Your task to perform on an android device: open sync settings in chrome Image 0: 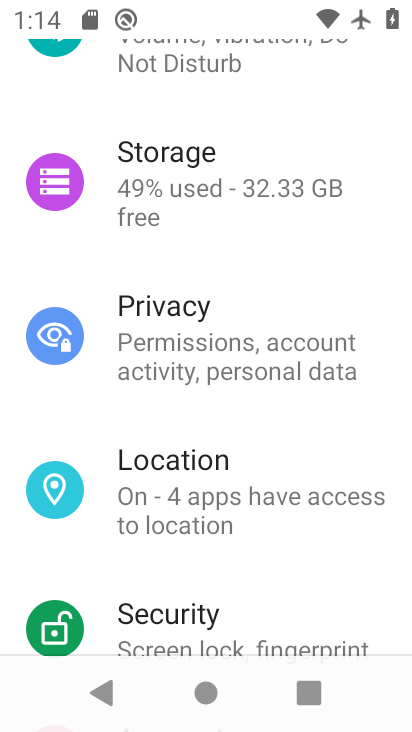
Step 0: press home button
Your task to perform on an android device: open sync settings in chrome Image 1: 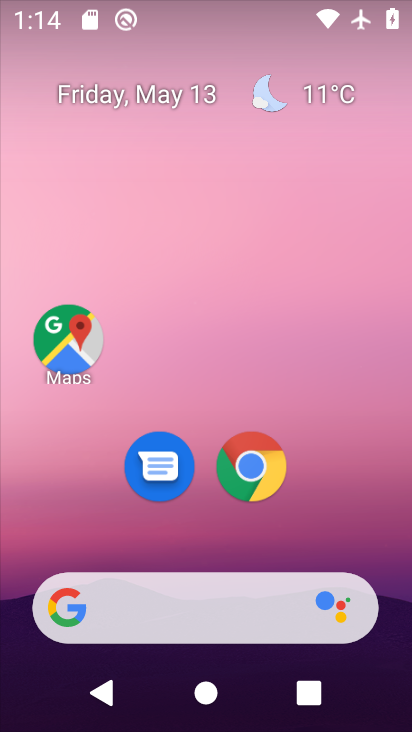
Step 1: drag from (224, 555) to (360, 51)
Your task to perform on an android device: open sync settings in chrome Image 2: 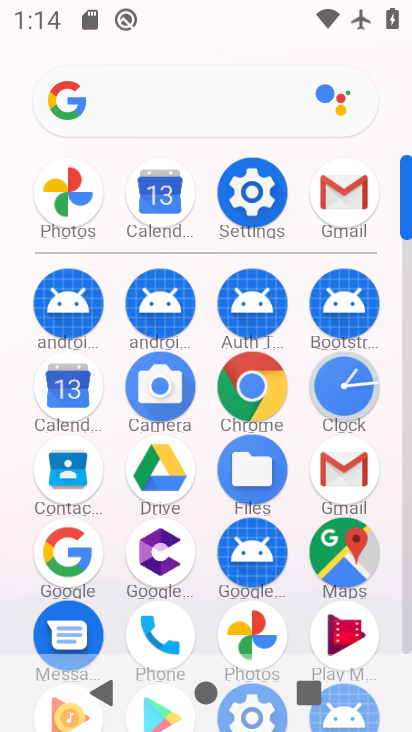
Step 2: click (265, 388)
Your task to perform on an android device: open sync settings in chrome Image 3: 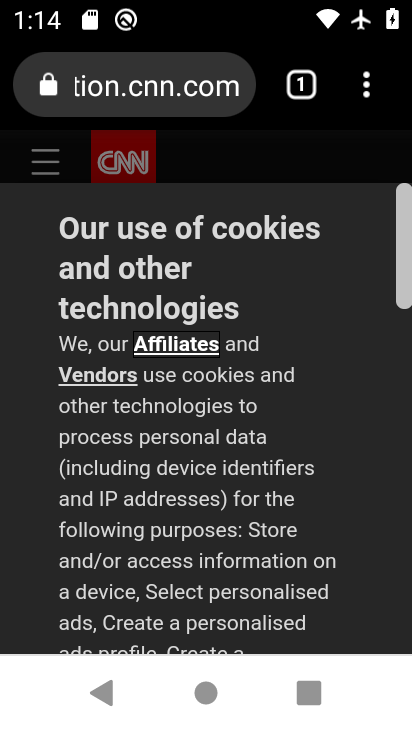
Step 3: click (371, 84)
Your task to perform on an android device: open sync settings in chrome Image 4: 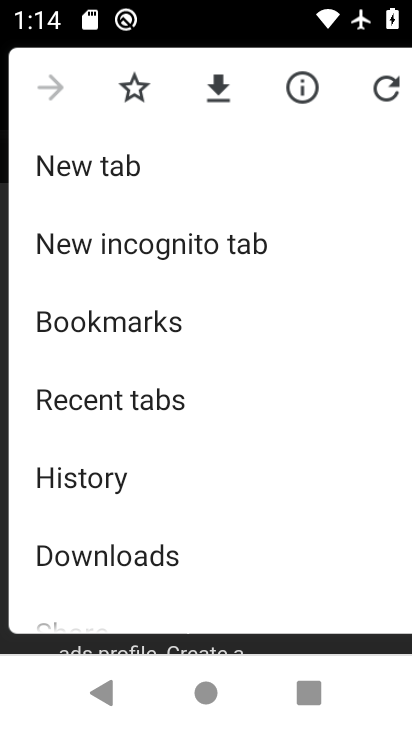
Step 4: drag from (110, 511) to (182, 194)
Your task to perform on an android device: open sync settings in chrome Image 5: 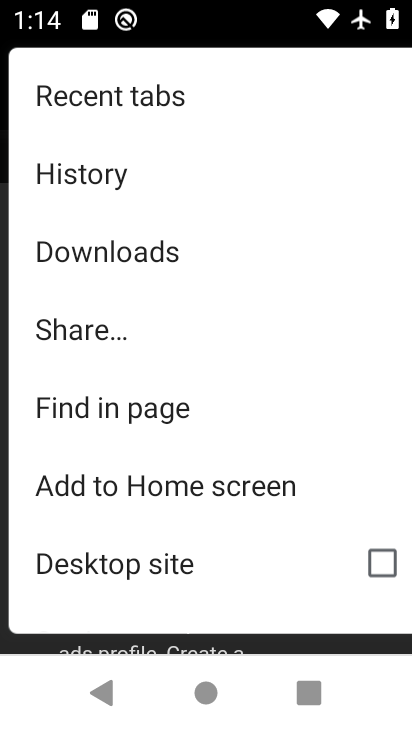
Step 5: drag from (104, 525) to (179, 186)
Your task to perform on an android device: open sync settings in chrome Image 6: 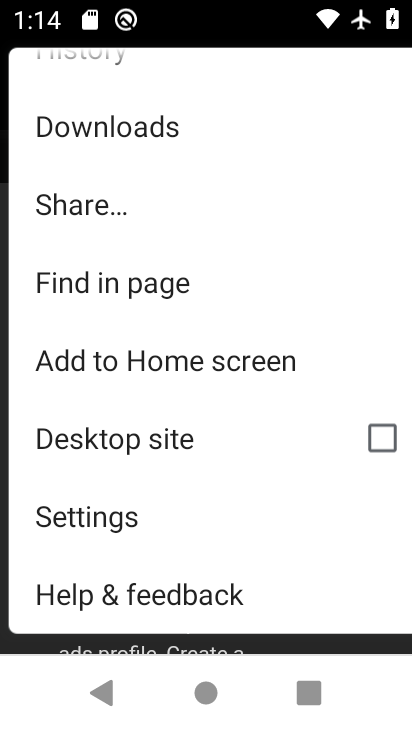
Step 6: click (50, 513)
Your task to perform on an android device: open sync settings in chrome Image 7: 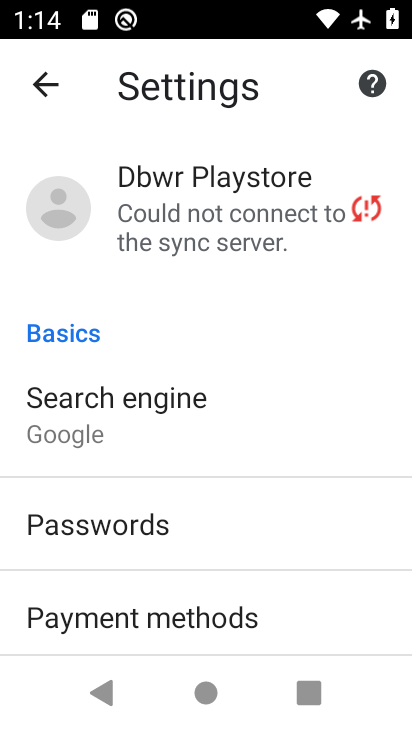
Step 7: click (178, 265)
Your task to perform on an android device: open sync settings in chrome Image 8: 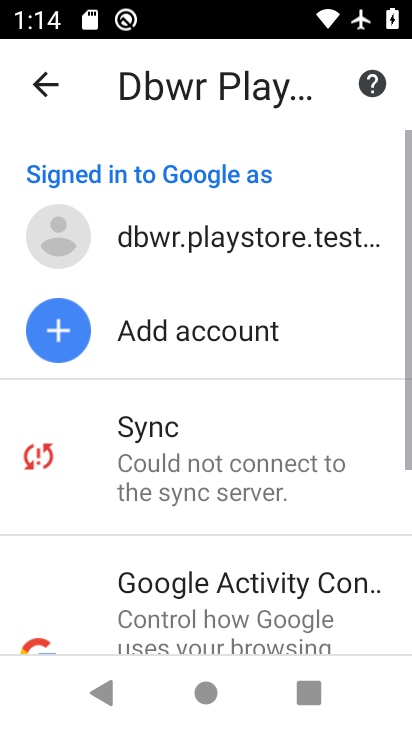
Step 8: click (120, 456)
Your task to perform on an android device: open sync settings in chrome Image 9: 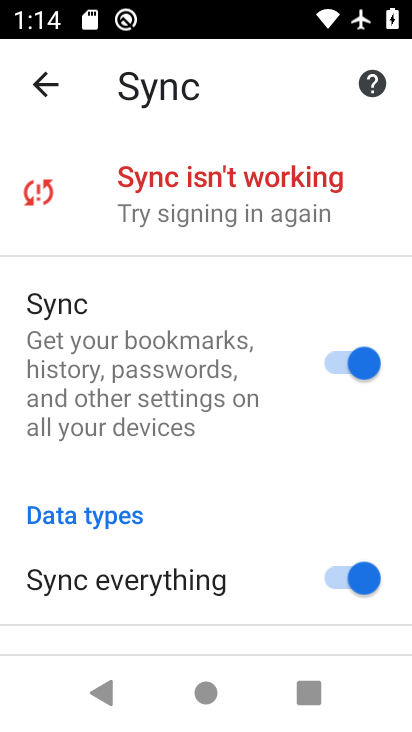
Step 9: task complete